Your task to perform on an android device: turn on bluetooth scan Image 0: 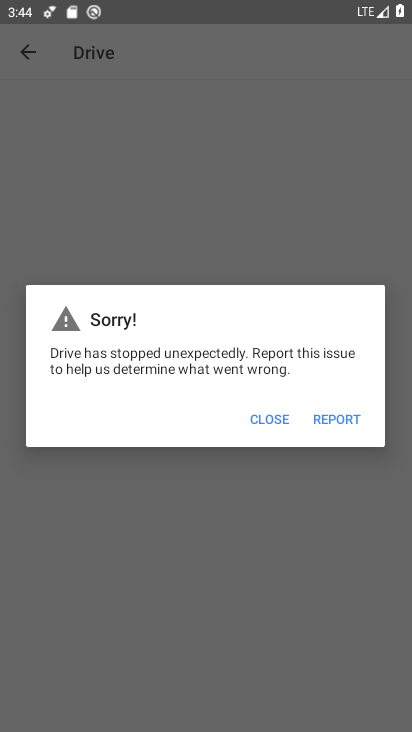
Step 0: press home button
Your task to perform on an android device: turn on bluetooth scan Image 1: 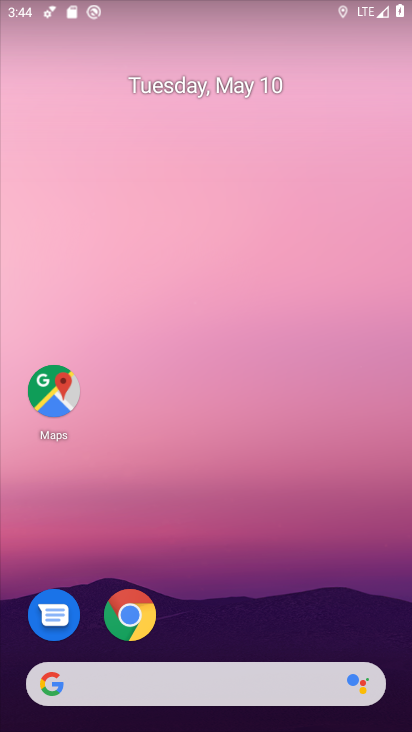
Step 1: drag from (337, 648) to (361, 6)
Your task to perform on an android device: turn on bluetooth scan Image 2: 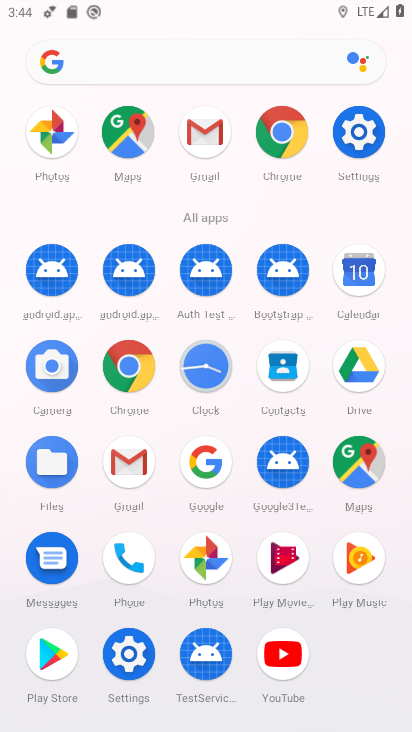
Step 2: click (361, 129)
Your task to perform on an android device: turn on bluetooth scan Image 3: 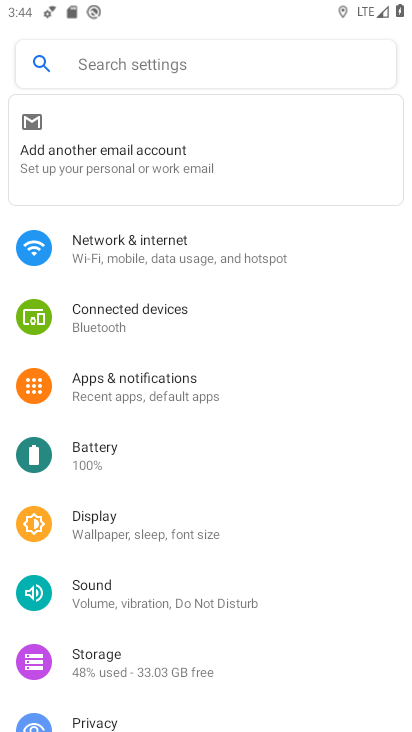
Step 3: drag from (163, 652) to (199, 218)
Your task to perform on an android device: turn on bluetooth scan Image 4: 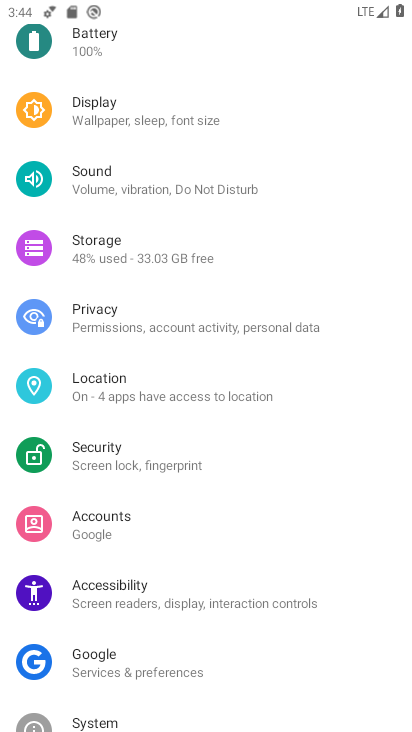
Step 4: click (191, 393)
Your task to perform on an android device: turn on bluetooth scan Image 5: 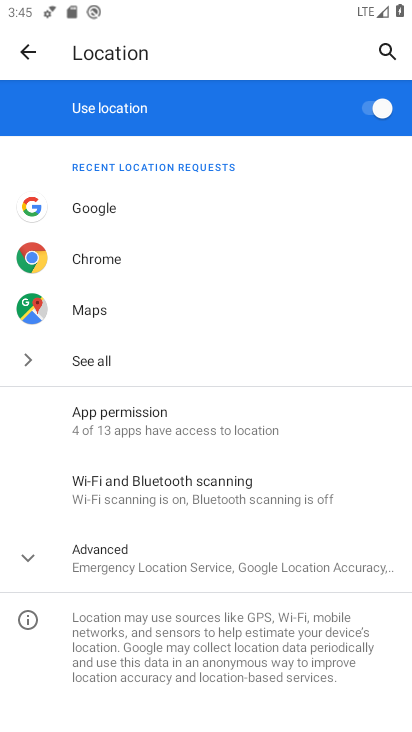
Step 5: click (288, 489)
Your task to perform on an android device: turn on bluetooth scan Image 6: 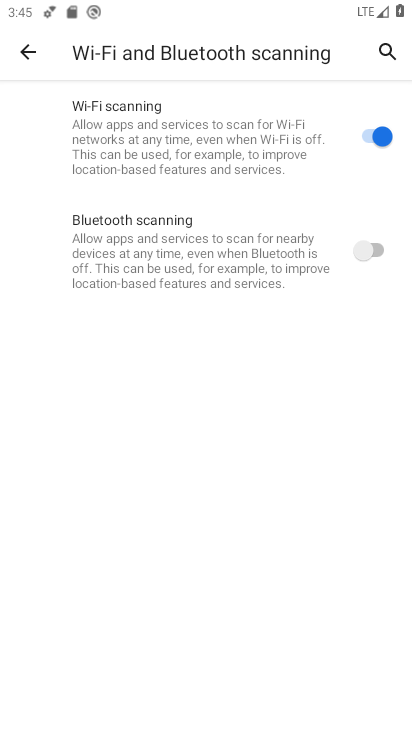
Step 6: click (376, 241)
Your task to perform on an android device: turn on bluetooth scan Image 7: 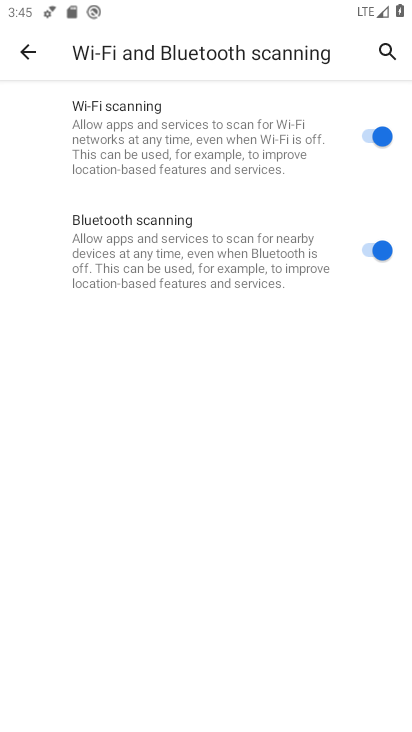
Step 7: task complete